Your task to perform on an android device: Play the last video I watched on Youtube Image 0: 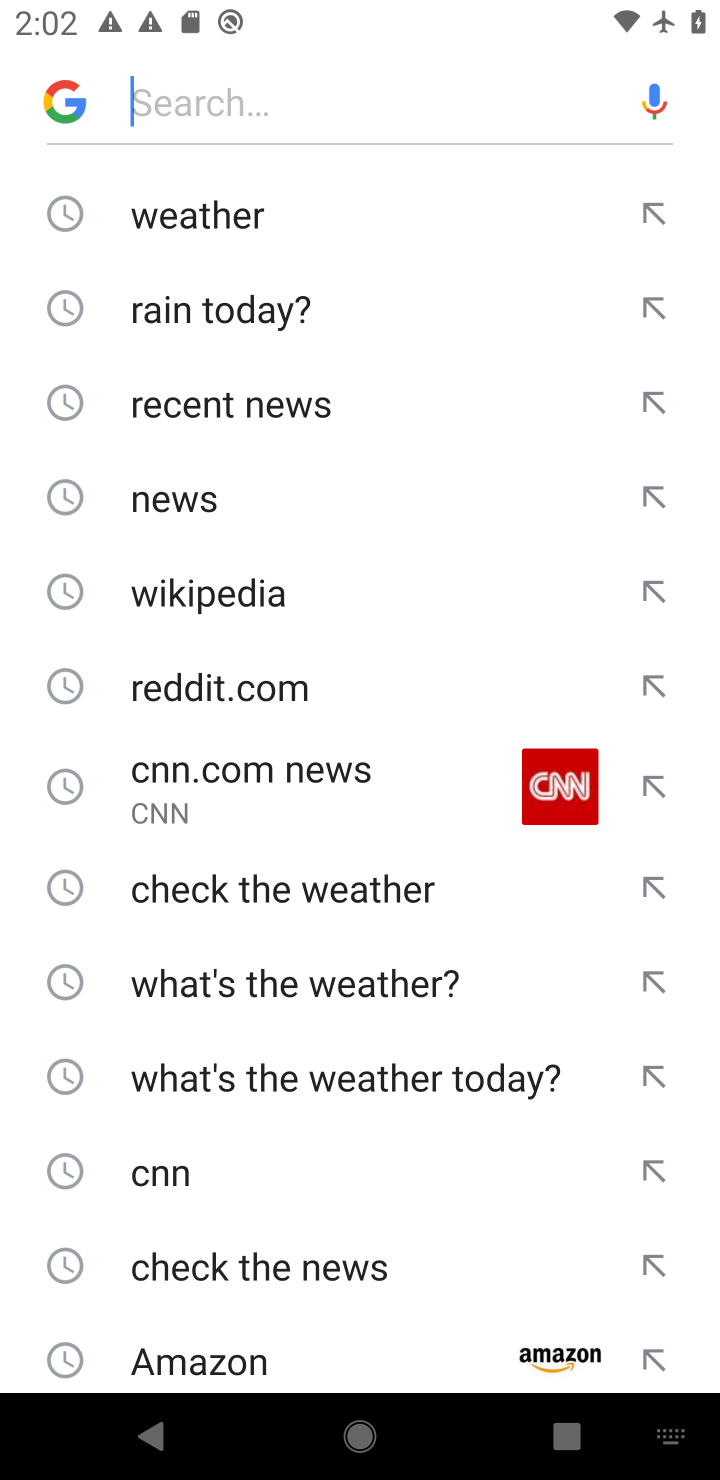
Step 0: press home button
Your task to perform on an android device: Play the last video I watched on Youtube Image 1: 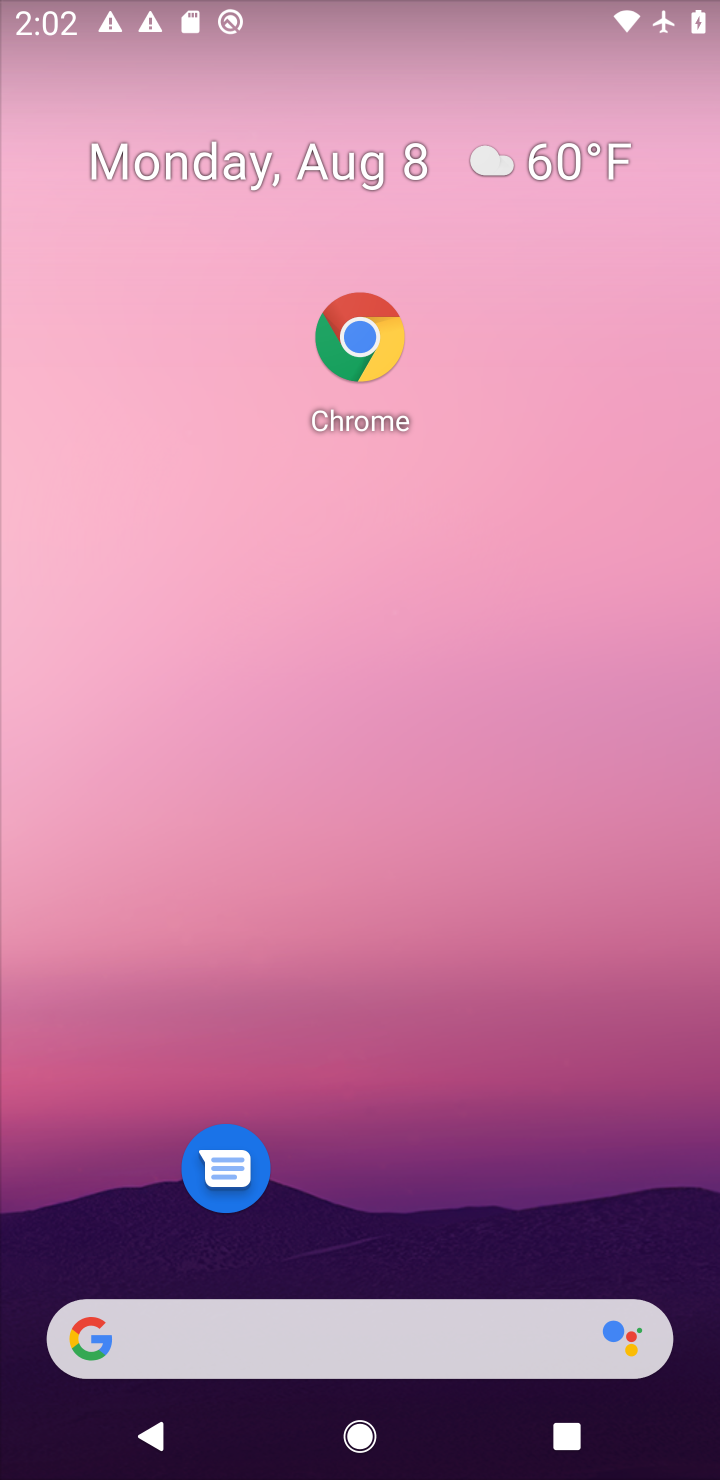
Step 1: drag from (526, 1249) to (550, 56)
Your task to perform on an android device: Play the last video I watched on Youtube Image 2: 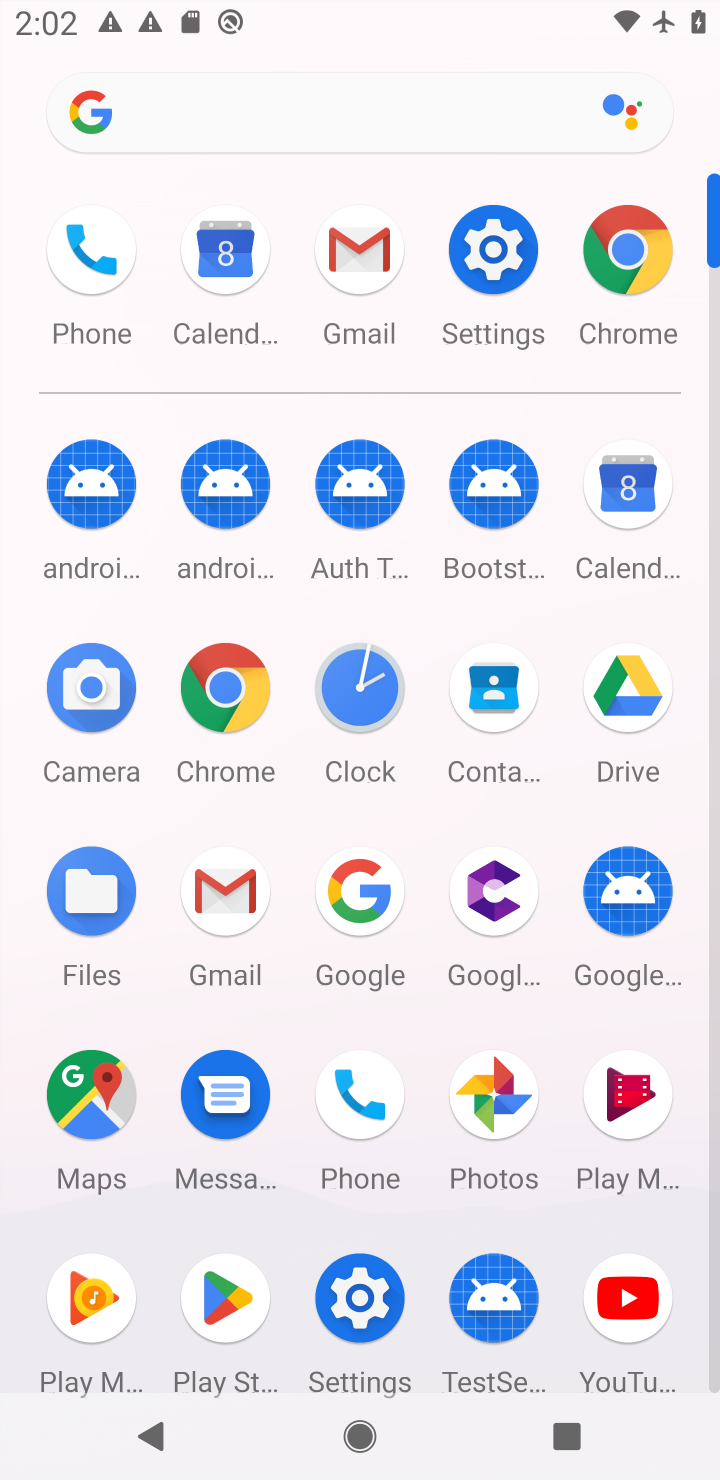
Step 2: click (640, 1283)
Your task to perform on an android device: Play the last video I watched on Youtube Image 3: 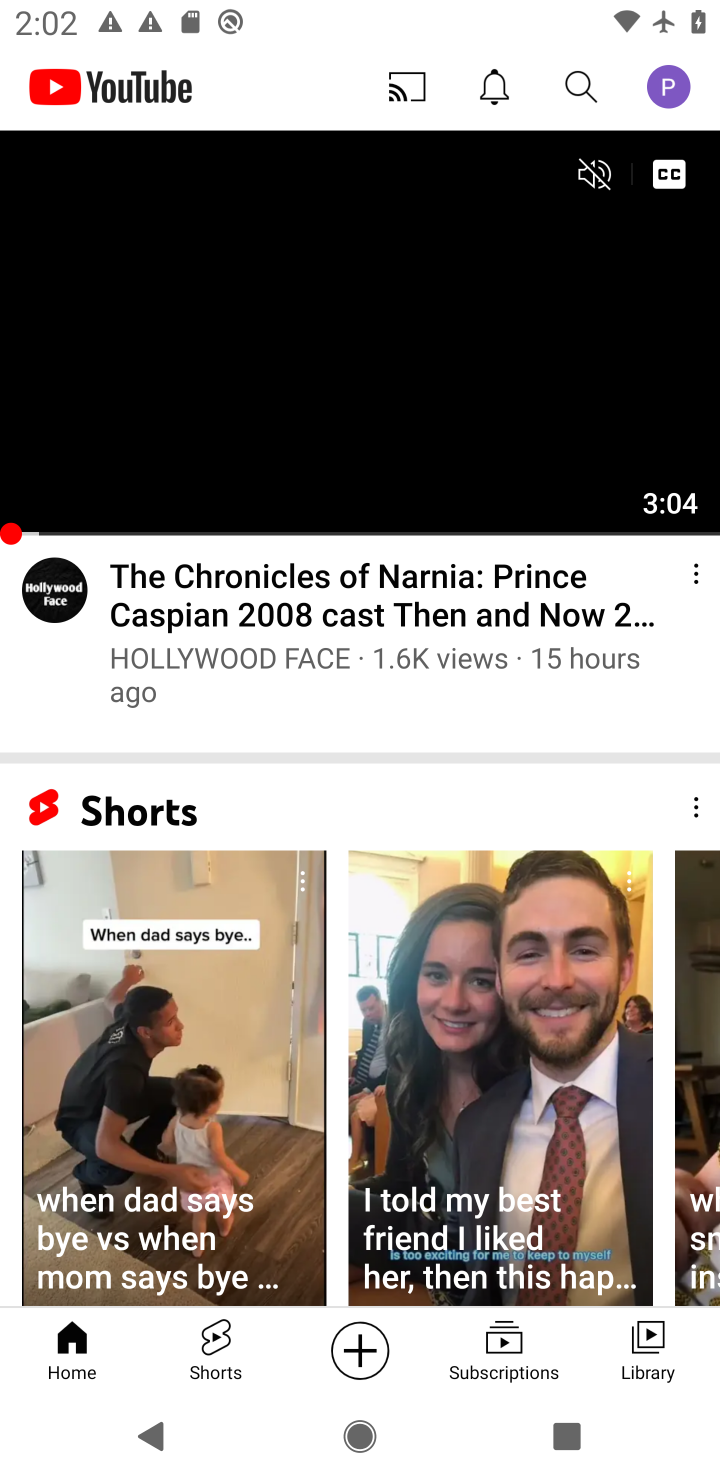
Step 3: task complete